Your task to perform on an android device: create a new album in the google photos Image 0: 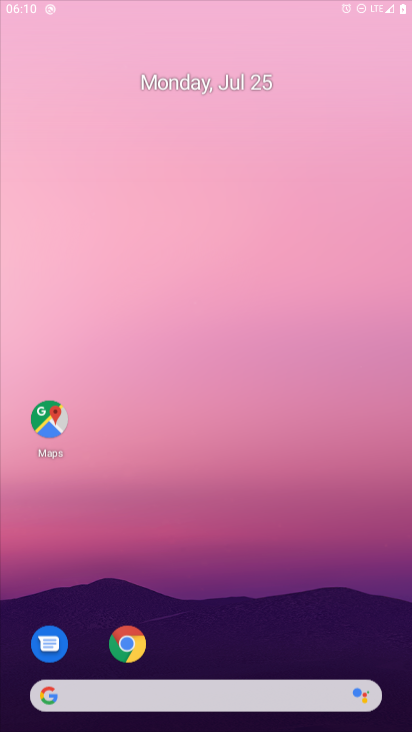
Step 0: press home button
Your task to perform on an android device: create a new album in the google photos Image 1: 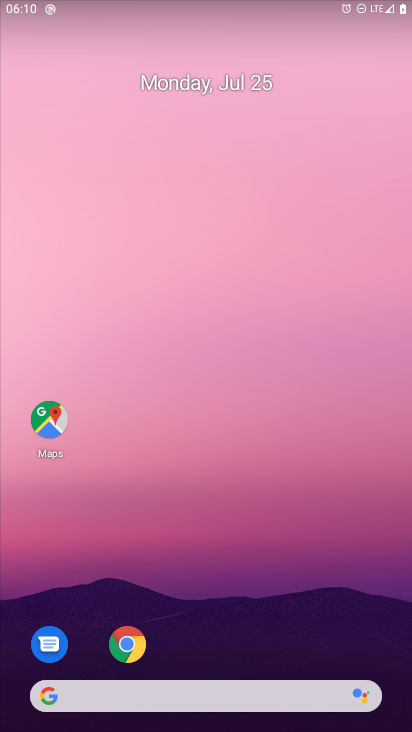
Step 1: drag from (219, 629) to (154, 139)
Your task to perform on an android device: create a new album in the google photos Image 2: 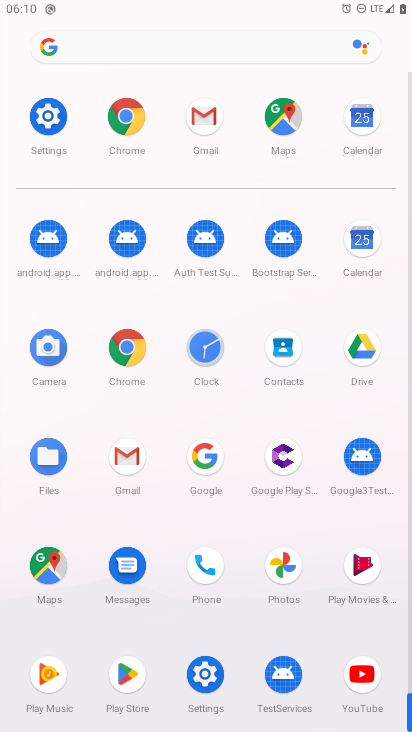
Step 2: click (277, 567)
Your task to perform on an android device: create a new album in the google photos Image 3: 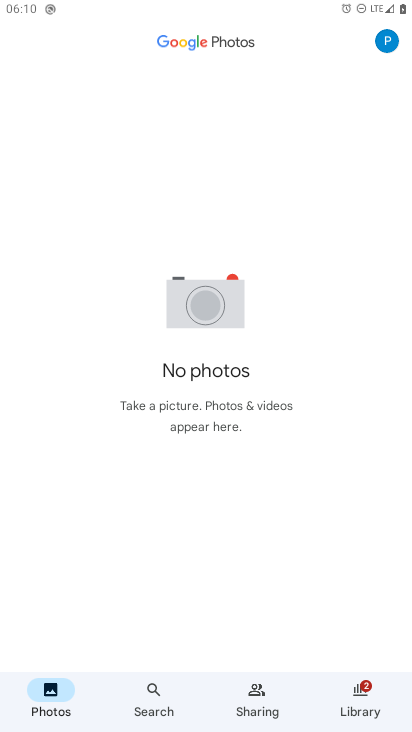
Step 3: task complete